Your task to perform on an android device: Search for seafood restaurants on Google Maps Image 0: 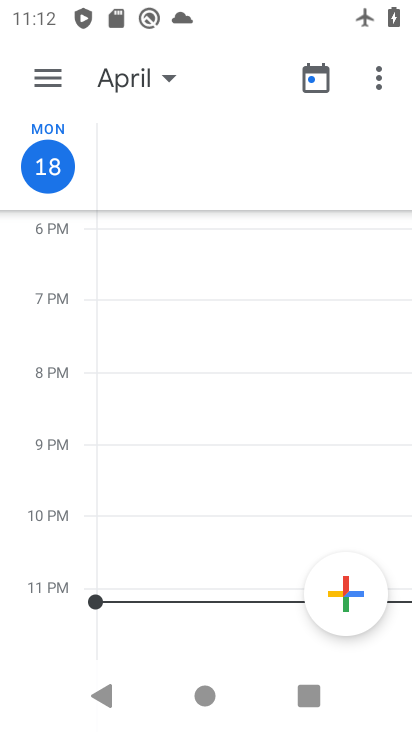
Step 0: press home button
Your task to perform on an android device: Search for seafood restaurants on Google Maps Image 1: 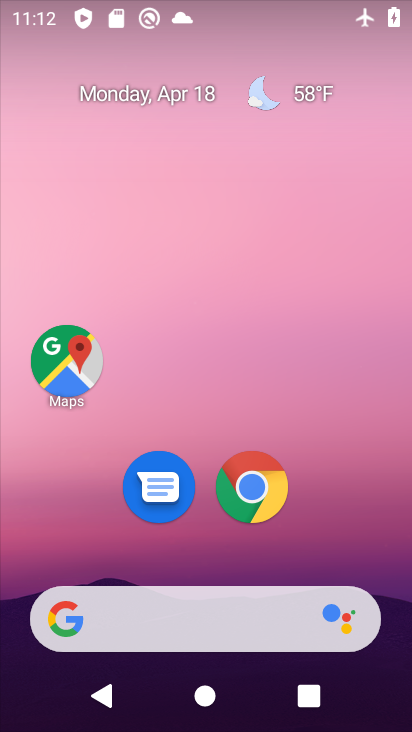
Step 1: drag from (338, 475) to (296, 150)
Your task to perform on an android device: Search for seafood restaurants on Google Maps Image 2: 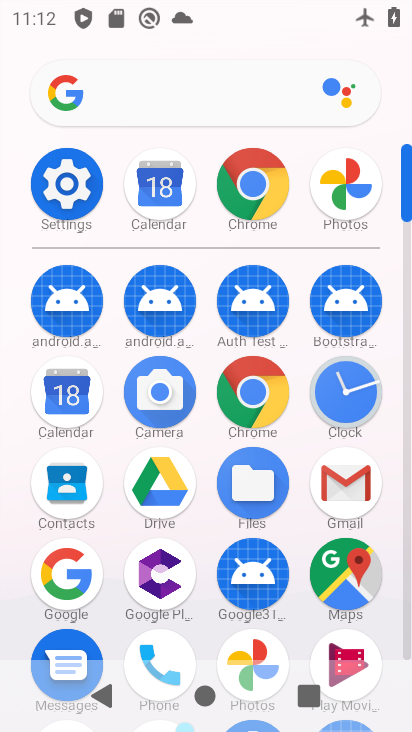
Step 2: click (356, 591)
Your task to perform on an android device: Search for seafood restaurants on Google Maps Image 3: 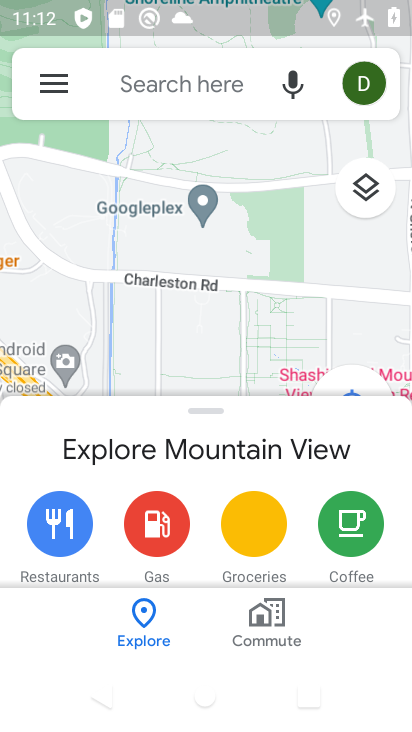
Step 3: click (236, 71)
Your task to perform on an android device: Search for seafood restaurants on Google Maps Image 4: 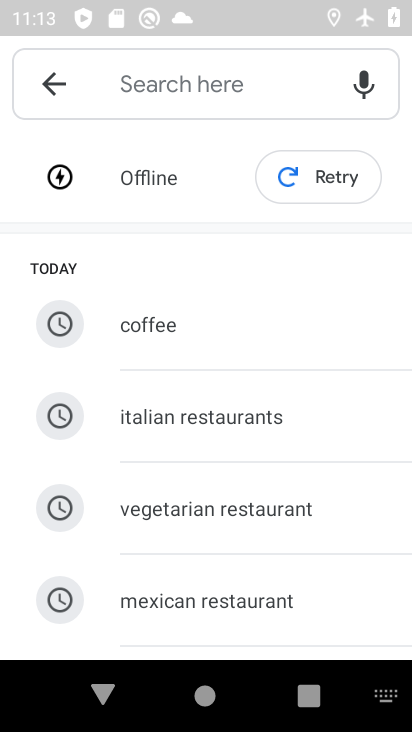
Step 4: type "seafood restaurants"
Your task to perform on an android device: Search for seafood restaurants on Google Maps Image 5: 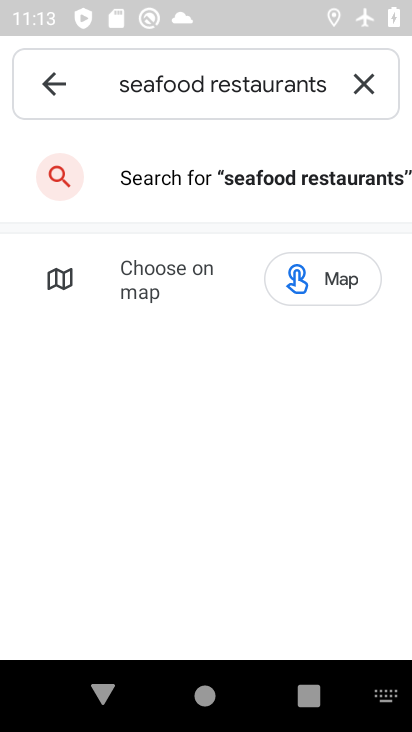
Step 5: click (255, 191)
Your task to perform on an android device: Search for seafood restaurants on Google Maps Image 6: 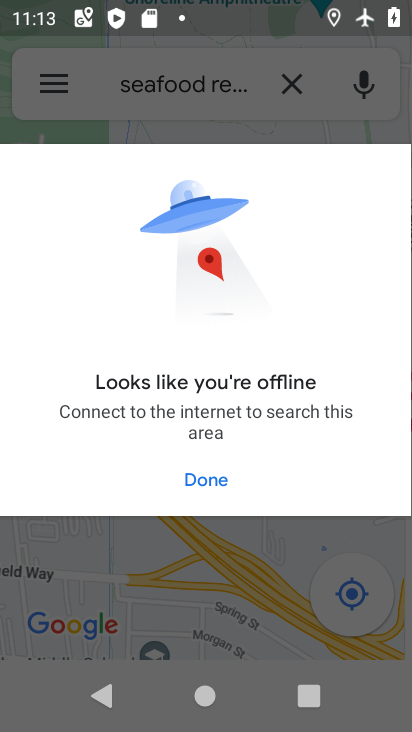
Step 6: task complete